Your task to perform on an android device: turn off notifications settings in the gmail app Image 0: 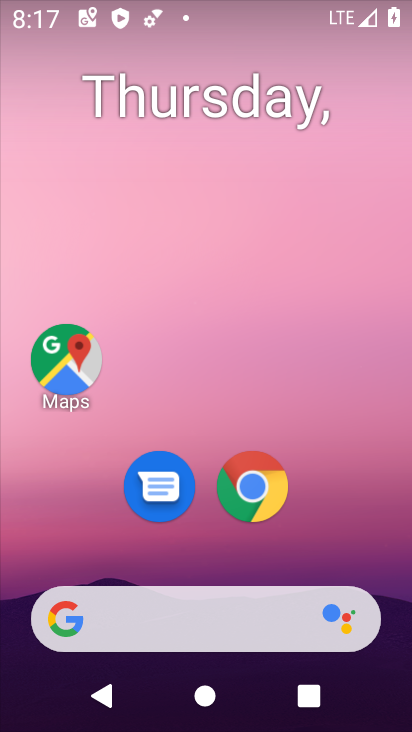
Step 0: drag from (227, 659) to (266, 174)
Your task to perform on an android device: turn off notifications settings in the gmail app Image 1: 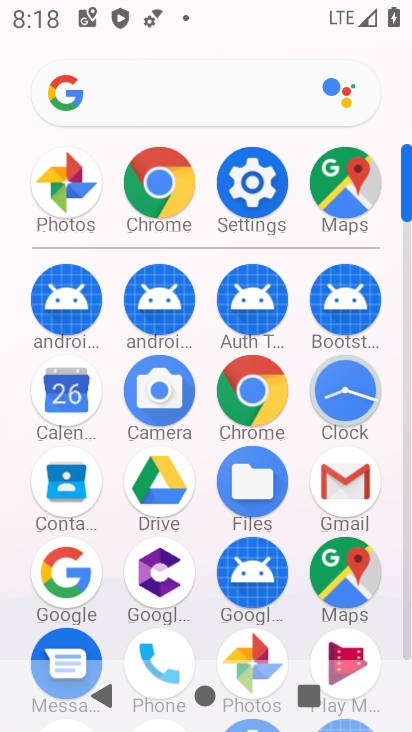
Step 1: click (354, 506)
Your task to perform on an android device: turn off notifications settings in the gmail app Image 2: 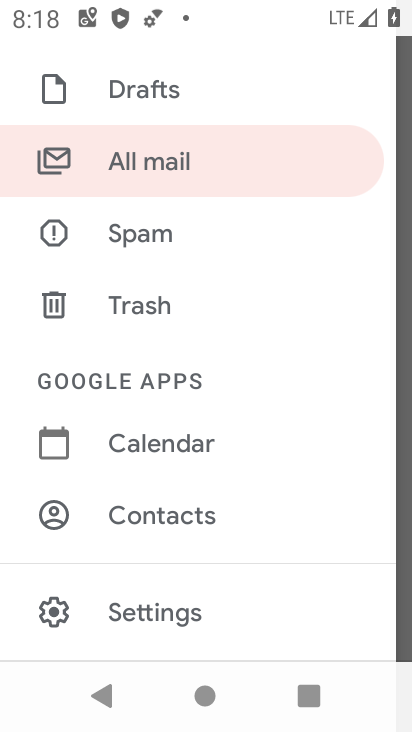
Step 2: drag from (232, 510) to (237, 306)
Your task to perform on an android device: turn off notifications settings in the gmail app Image 3: 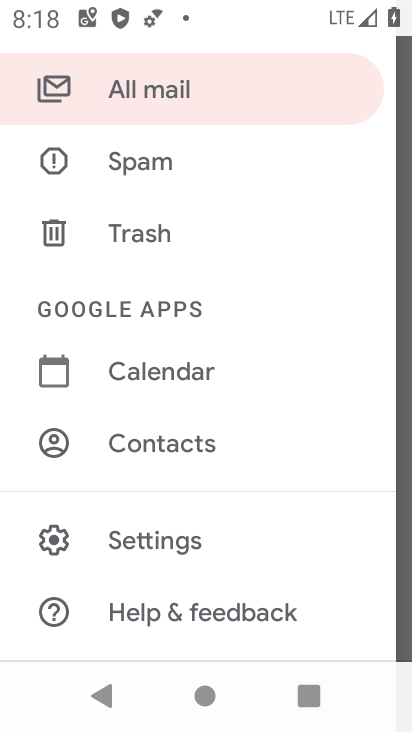
Step 3: click (174, 545)
Your task to perform on an android device: turn off notifications settings in the gmail app Image 4: 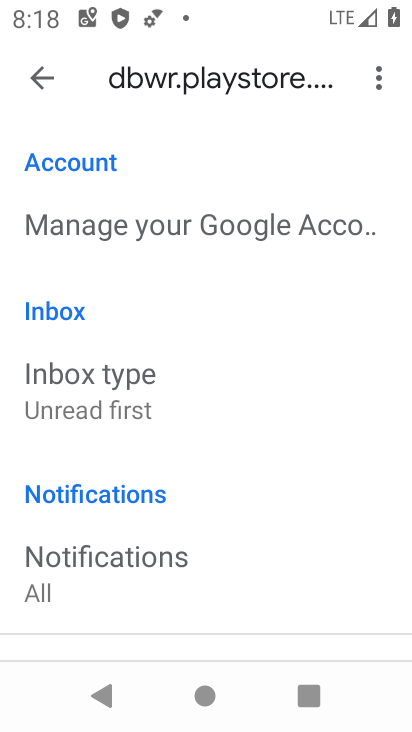
Step 4: click (38, 90)
Your task to perform on an android device: turn off notifications settings in the gmail app Image 5: 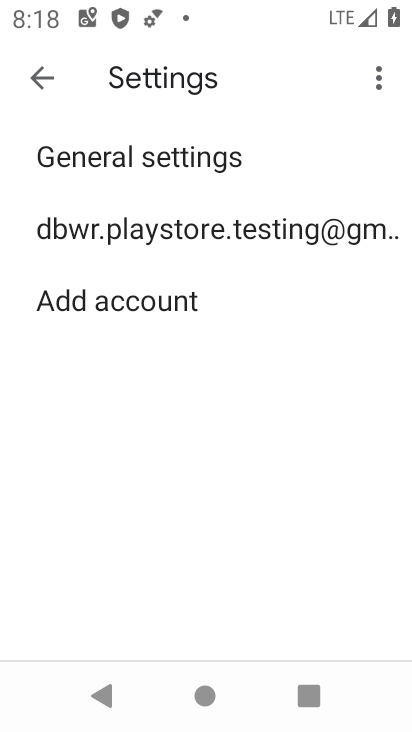
Step 5: click (95, 171)
Your task to perform on an android device: turn off notifications settings in the gmail app Image 6: 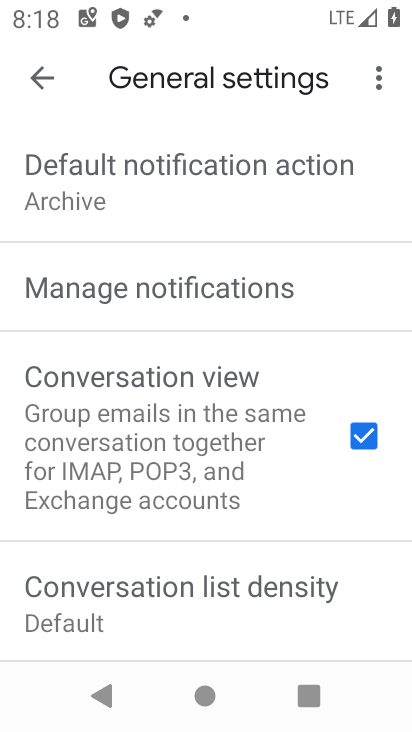
Step 6: click (146, 290)
Your task to perform on an android device: turn off notifications settings in the gmail app Image 7: 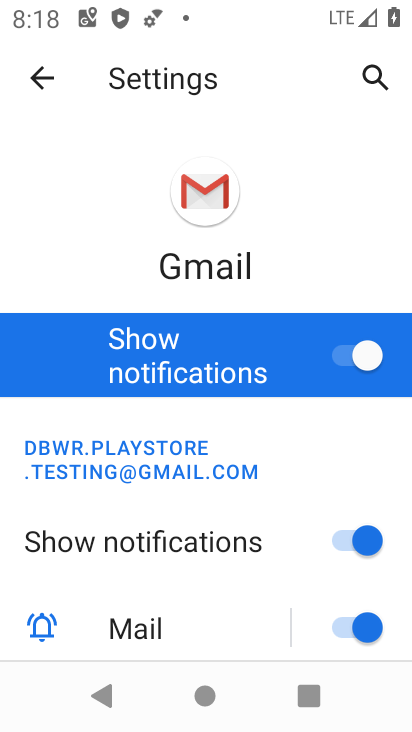
Step 7: task complete